Your task to perform on an android device: toggle notification dots Image 0: 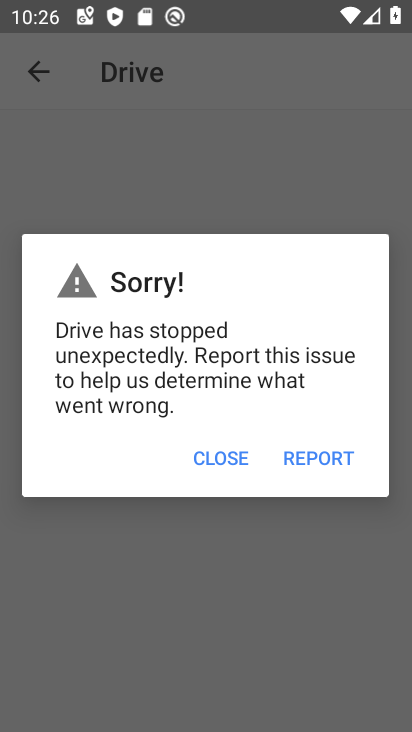
Step 0: press home button
Your task to perform on an android device: toggle notification dots Image 1: 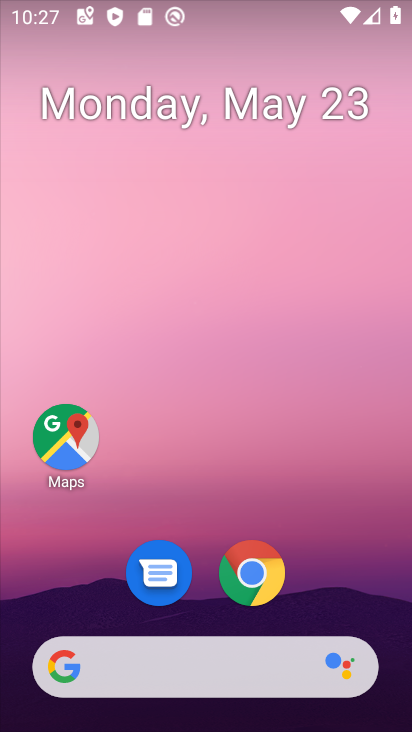
Step 1: drag from (244, 640) to (244, 154)
Your task to perform on an android device: toggle notification dots Image 2: 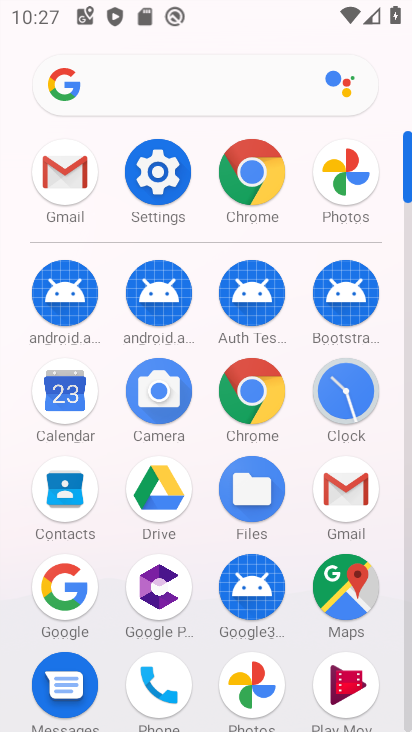
Step 2: click (156, 186)
Your task to perform on an android device: toggle notification dots Image 3: 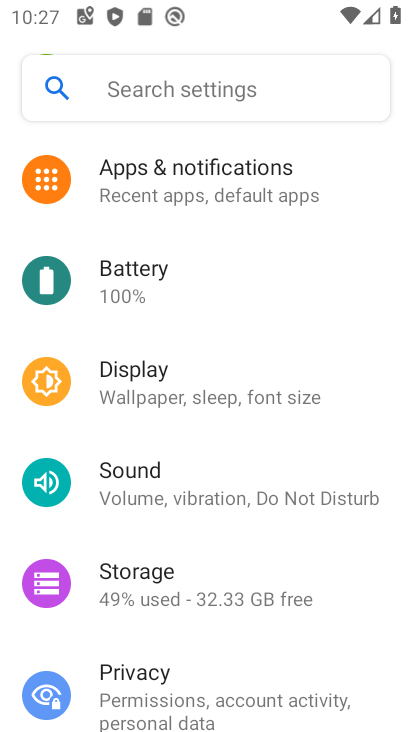
Step 3: click (216, 203)
Your task to perform on an android device: toggle notification dots Image 4: 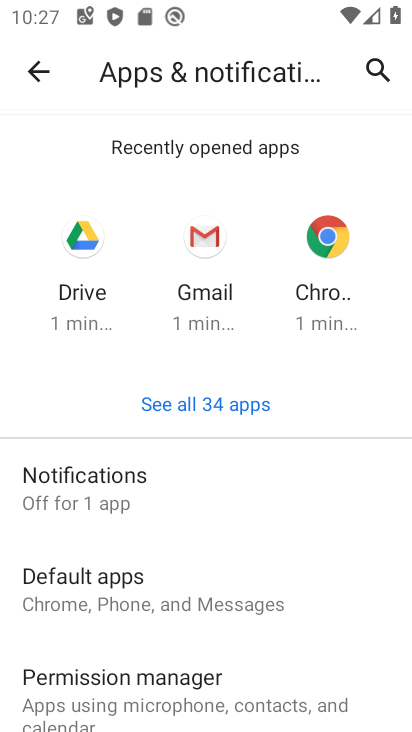
Step 4: click (214, 490)
Your task to perform on an android device: toggle notification dots Image 5: 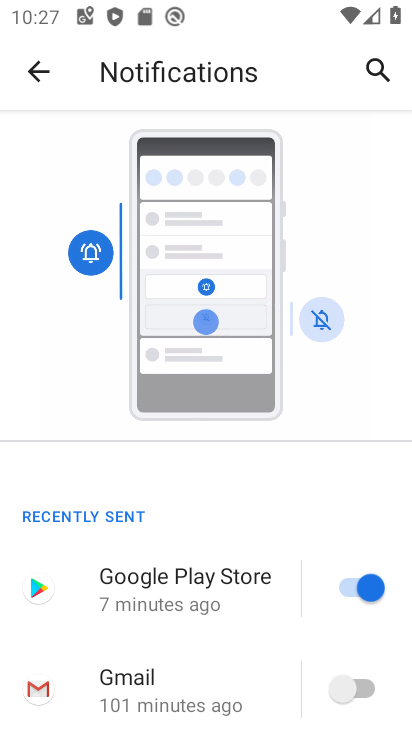
Step 5: drag from (197, 552) to (242, 230)
Your task to perform on an android device: toggle notification dots Image 6: 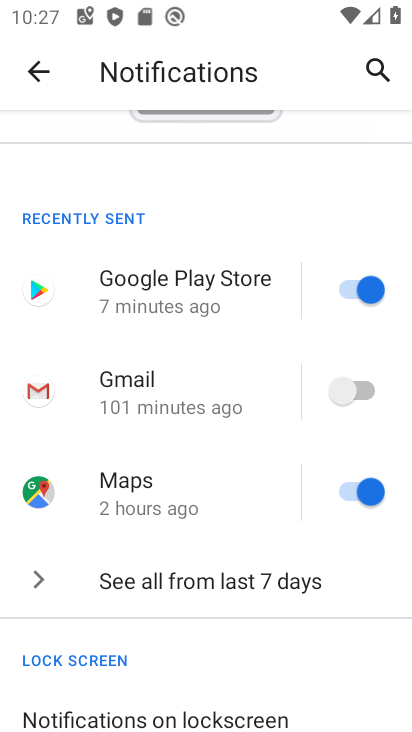
Step 6: drag from (202, 584) to (297, 247)
Your task to perform on an android device: toggle notification dots Image 7: 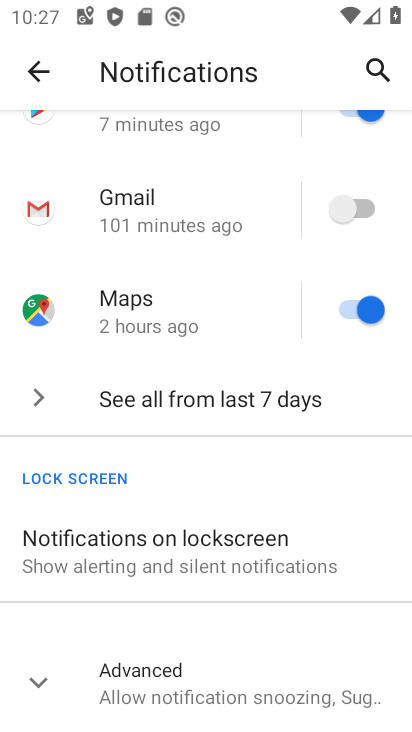
Step 7: drag from (211, 622) to (302, 245)
Your task to perform on an android device: toggle notification dots Image 8: 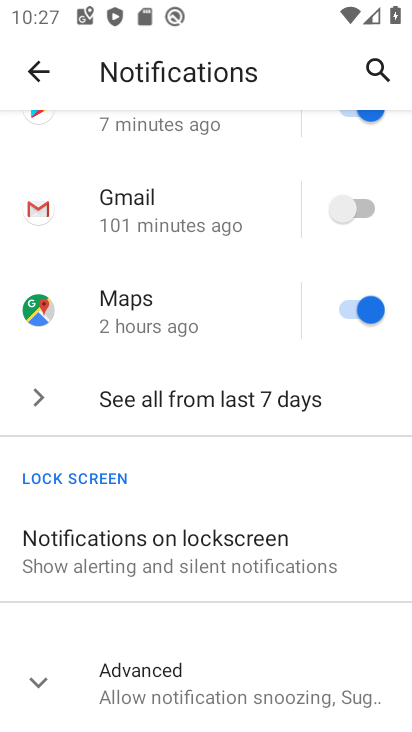
Step 8: click (225, 663)
Your task to perform on an android device: toggle notification dots Image 9: 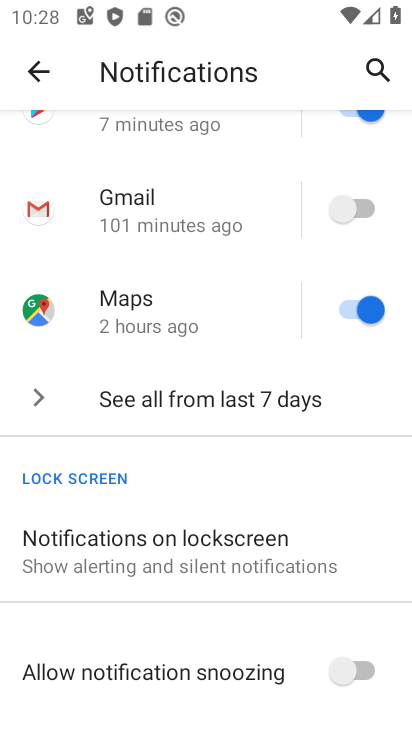
Step 9: drag from (166, 621) to (249, 179)
Your task to perform on an android device: toggle notification dots Image 10: 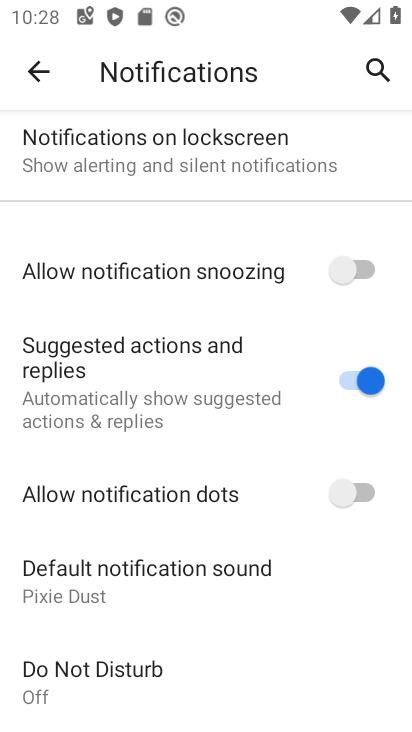
Step 10: click (262, 500)
Your task to perform on an android device: toggle notification dots Image 11: 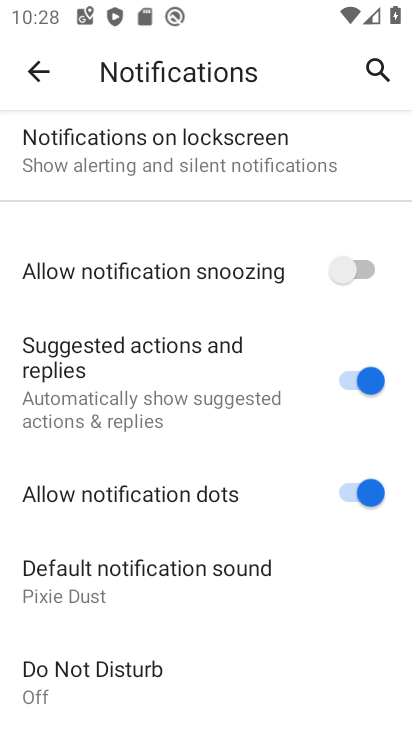
Step 11: task complete